Your task to perform on an android device: see tabs open on other devices in the chrome app Image 0: 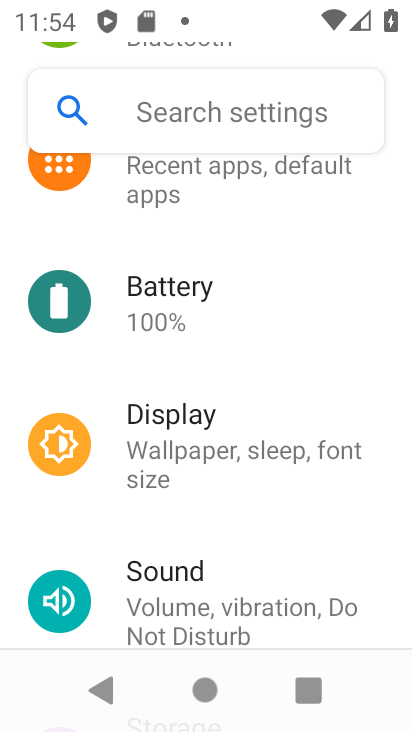
Step 0: press home button
Your task to perform on an android device: see tabs open on other devices in the chrome app Image 1: 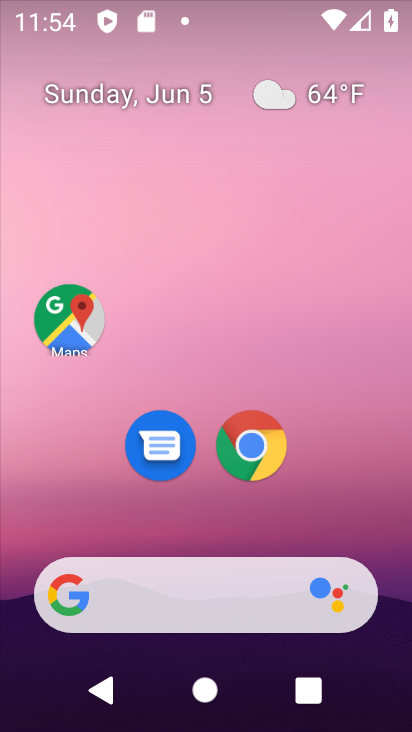
Step 1: drag from (370, 622) to (350, 9)
Your task to perform on an android device: see tabs open on other devices in the chrome app Image 2: 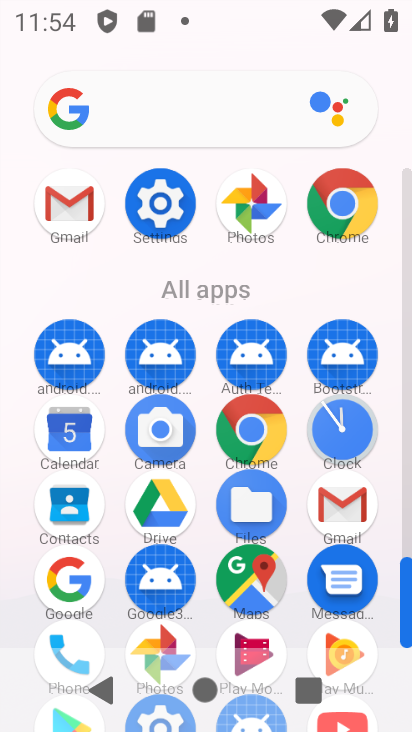
Step 2: click (266, 474)
Your task to perform on an android device: see tabs open on other devices in the chrome app Image 3: 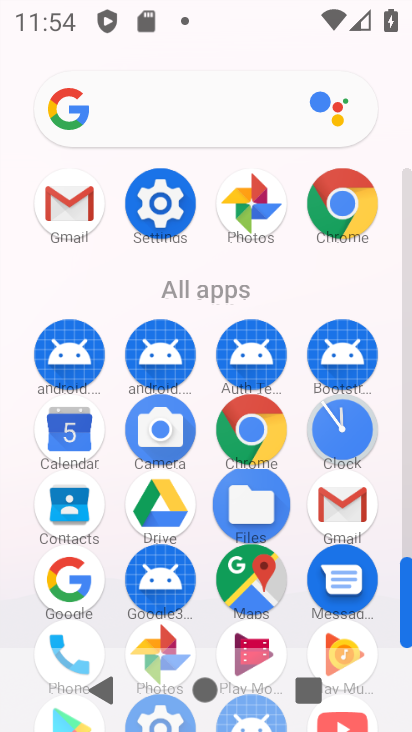
Step 3: click (264, 446)
Your task to perform on an android device: see tabs open on other devices in the chrome app Image 4: 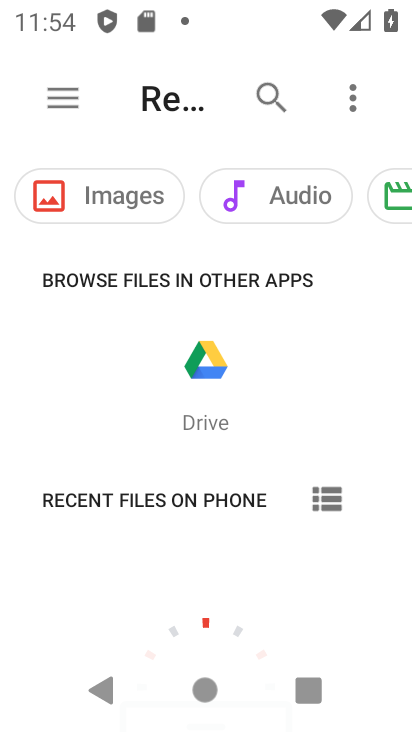
Step 4: press home button
Your task to perform on an android device: see tabs open on other devices in the chrome app Image 5: 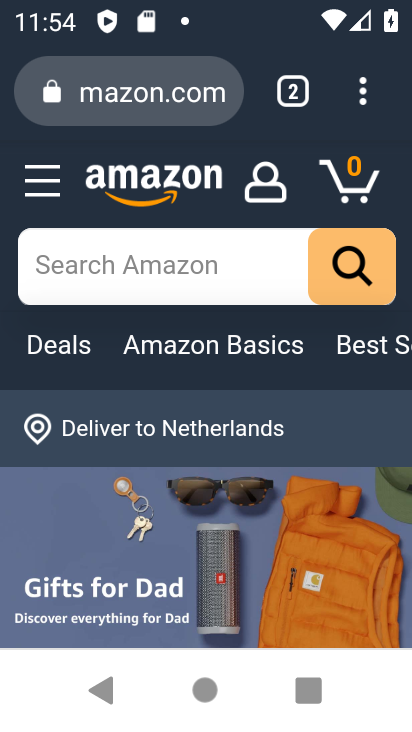
Step 5: click (362, 101)
Your task to perform on an android device: see tabs open on other devices in the chrome app Image 6: 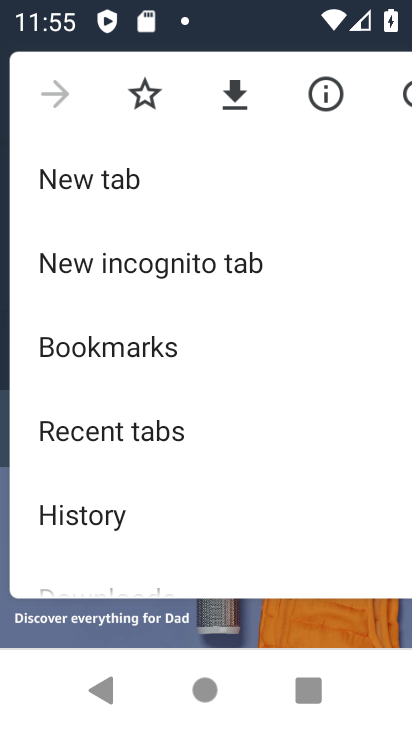
Step 6: drag from (303, 517) to (371, 183)
Your task to perform on an android device: see tabs open on other devices in the chrome app Image 7: 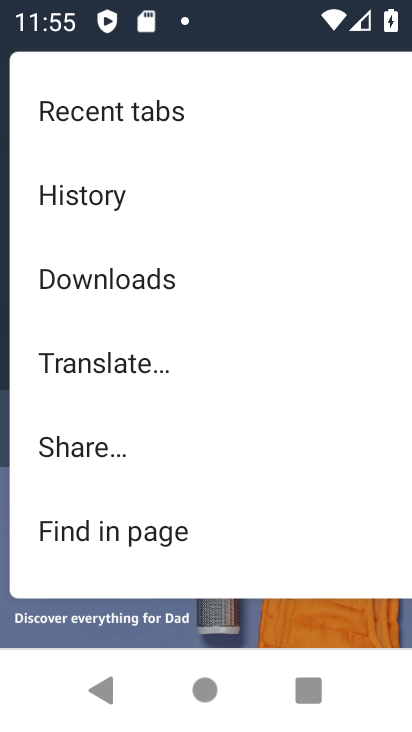
Step 7: click (217, 120)
Your task to perform on an android device: see tabs open on other devices in the chrome app Image 8: 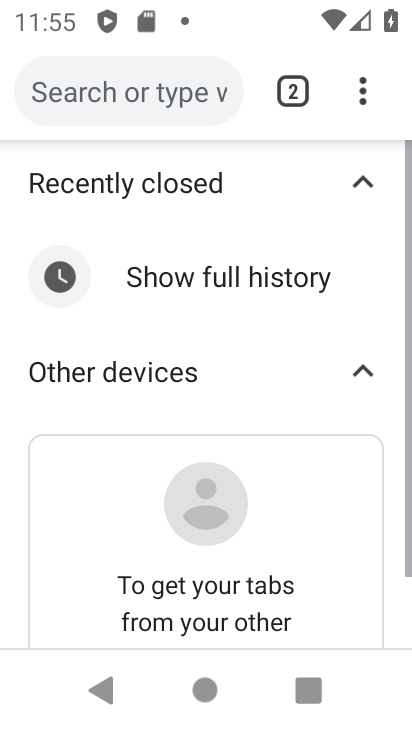
Step 8: task complete